Your task to perform on an android device: Open Youtube and go to the subscriptions tab Image 0: 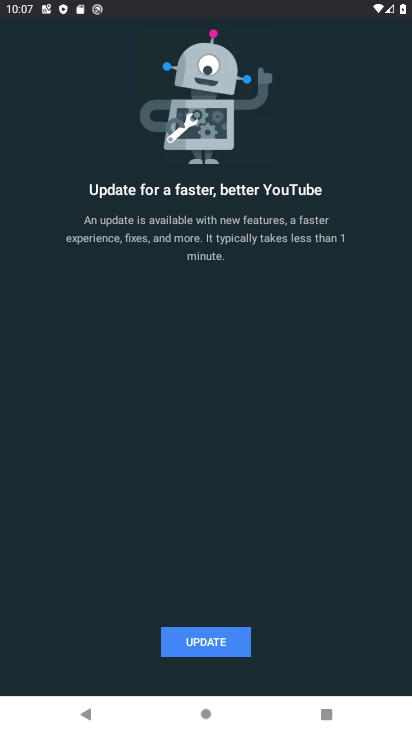
Step 0: press back button
Your task to perform on an android device: Open Youtube and go to the subscriptions tab Image 1: 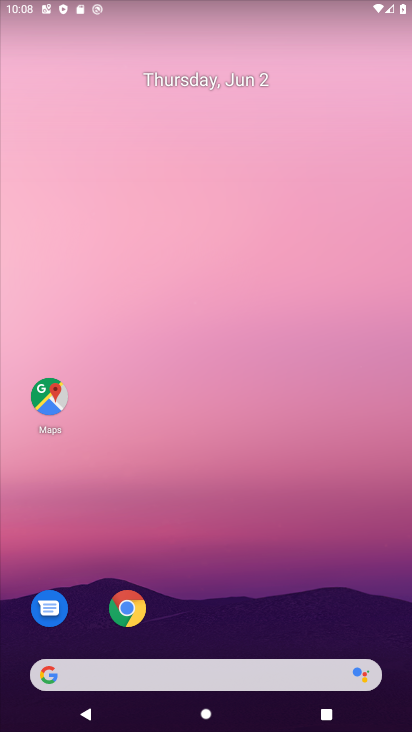
Step 1: drag from (140, 623) to (228, 87)
Your task to perform on an android device: Open Youtube and go to the subscriptions tab Image 2: 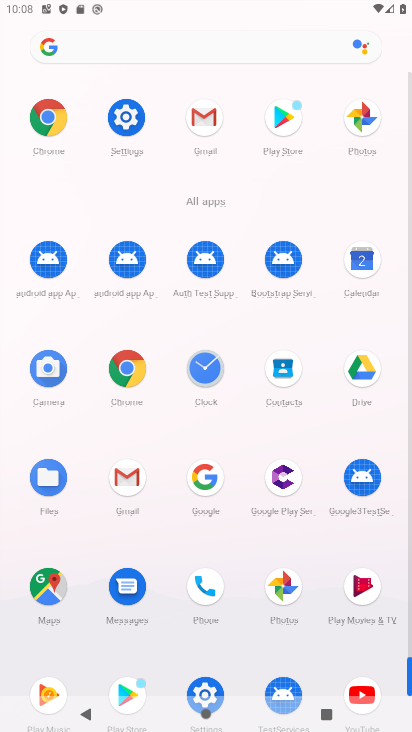
Step 2: click (372, 683)
Your task to perform on an android device: Open Youtube and go to the subscriptions tab Image 3: 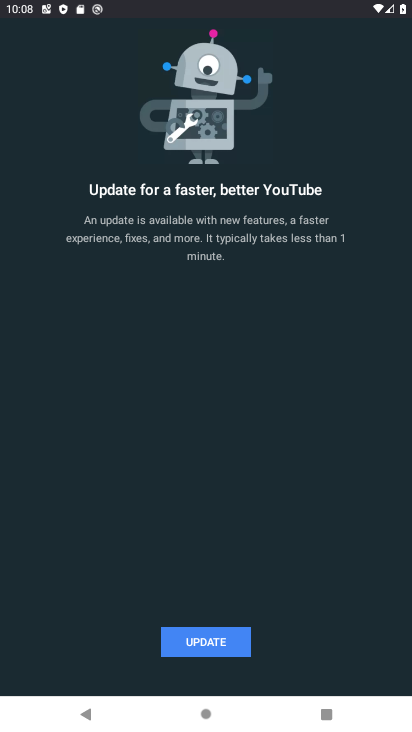
Step 3: click (179, 641)
Your task to perform on an android device: Open Youtube and go to the subscriptions tab Image 4: 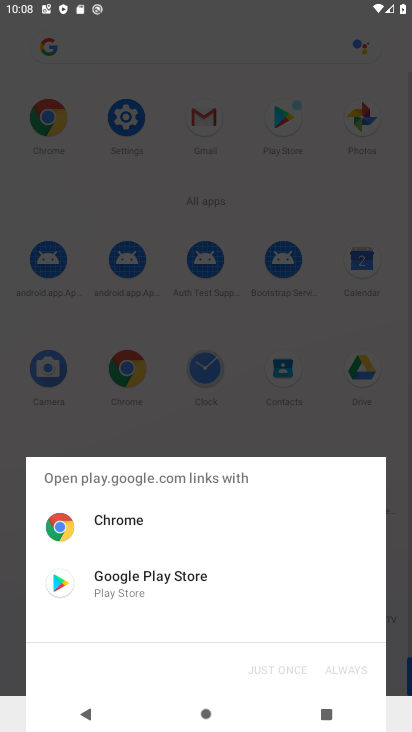
Step 4: click (236, 575)
Your task to perform on an android device: Open Youtube and go to the subscriptions tab Image 5: 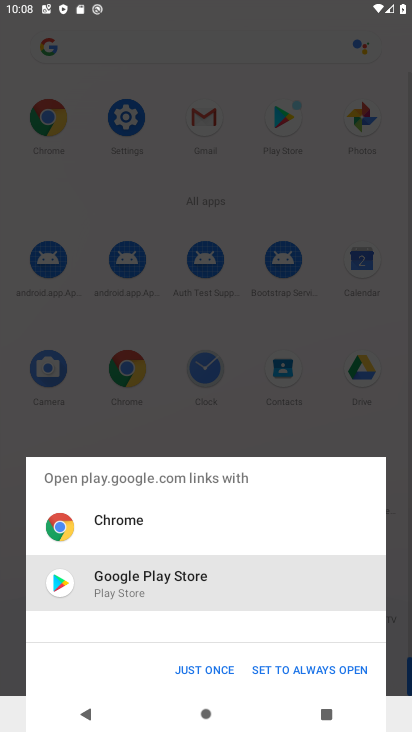
Step 5: click (211, 669)
Your task to perform on an android device: Open Youtube and go to the subscriptions tab Image 6: 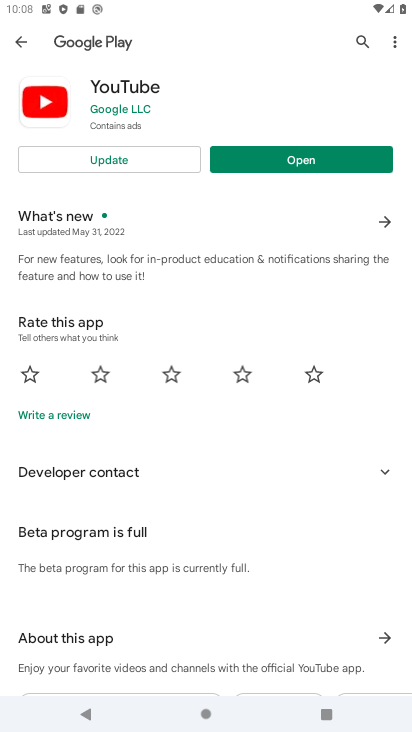
Step 6: click (144, 161)
Your task to perform on an android device: Open Youtube and go to the subscriptions tab Image 7: 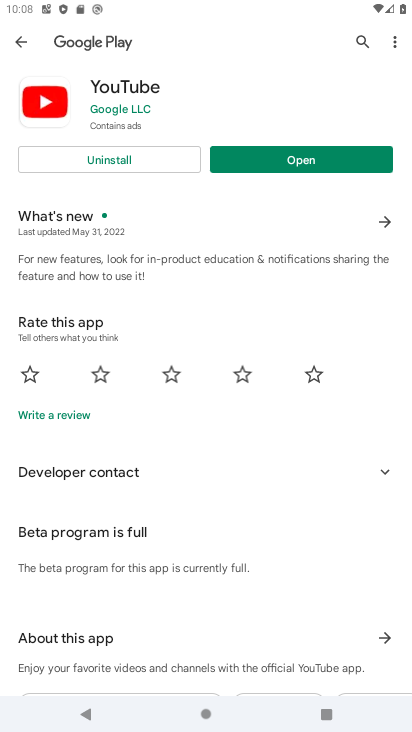
Step 7: click (259, 170)
Your task to perform on an android device: Open Youtube and go to the subscriptions tab Image 8: 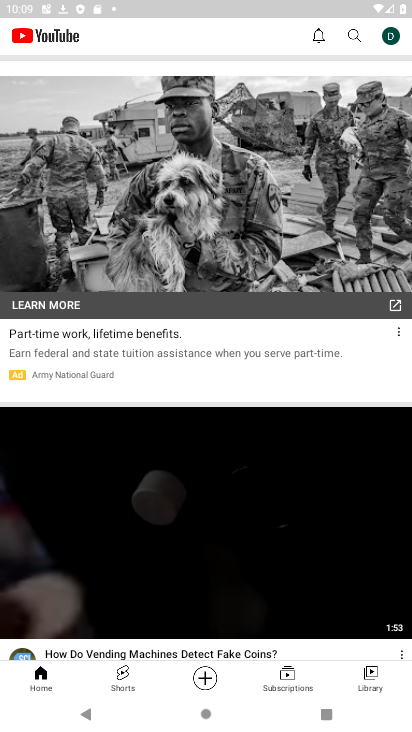
Step 8: click (299, 683)
Your task to perform on an android device: Open Youtube and go to the subscriptions tab Image 9: 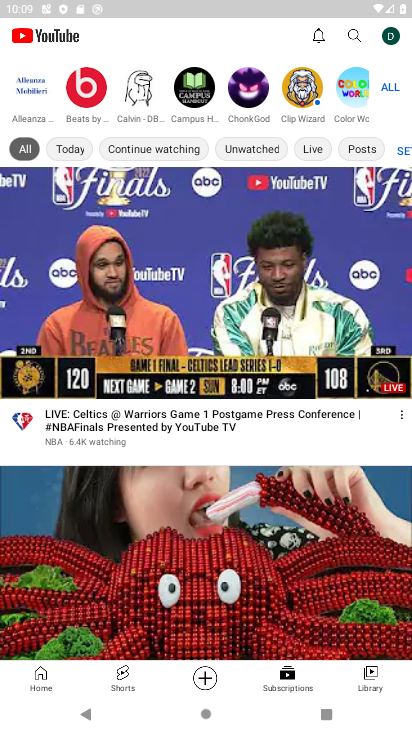
Step 9: task complete